Your task to perform on an android device: Open Amazon Image 0: 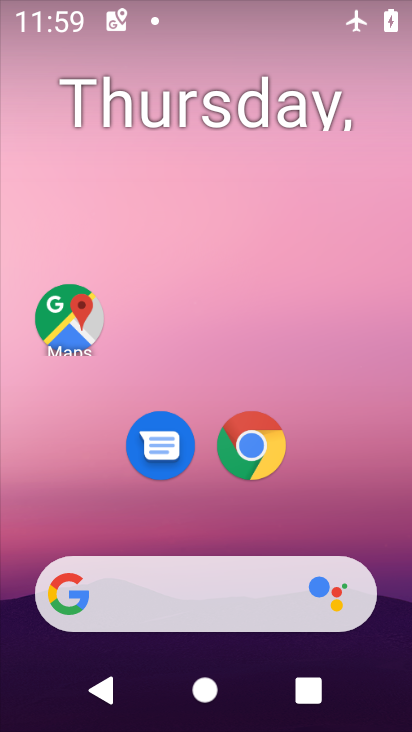
Step 0: click (260, 462)
Your task to perform on an android device: Open Amazon Image 1: 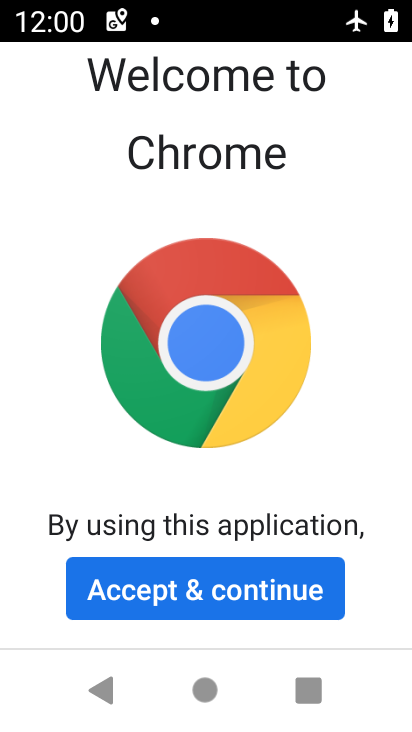
Step 1: click (207, 589)
Your task to perform on an android device: Open Amazon Image 2: 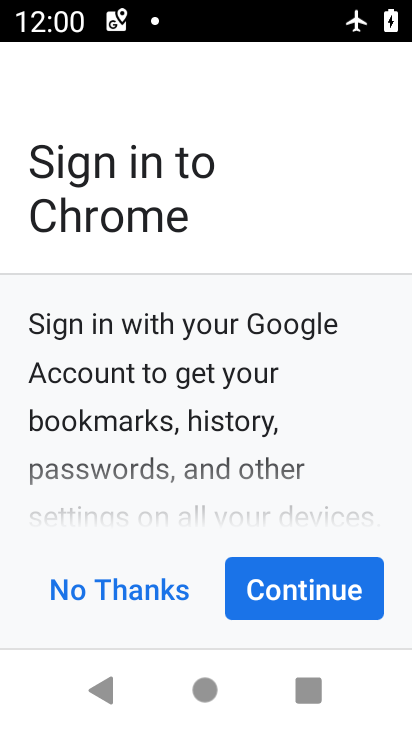
Step 2: click (272, 595)
Your task to perform on an android device: Open Amazon Image 3: 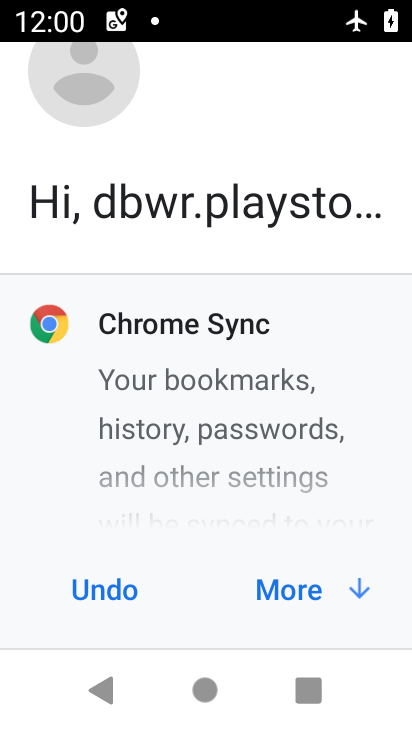
Step 3: click (293, 585)
Your task to perform on an android device: Open Amazon Image 4: 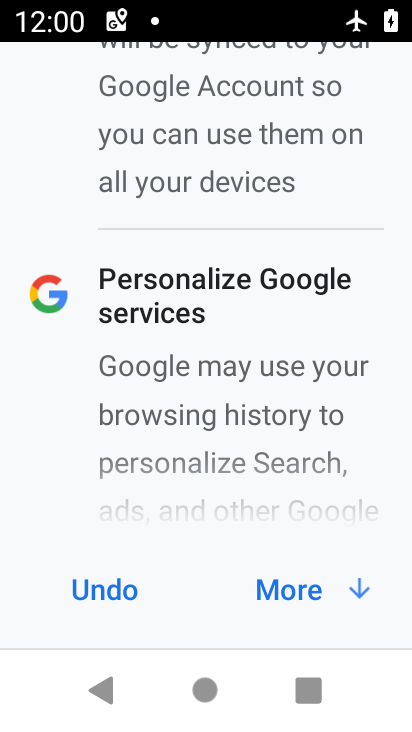
Step 4: click (292, 582)
Your task to perform on an android device: Open Amazon Image 5: 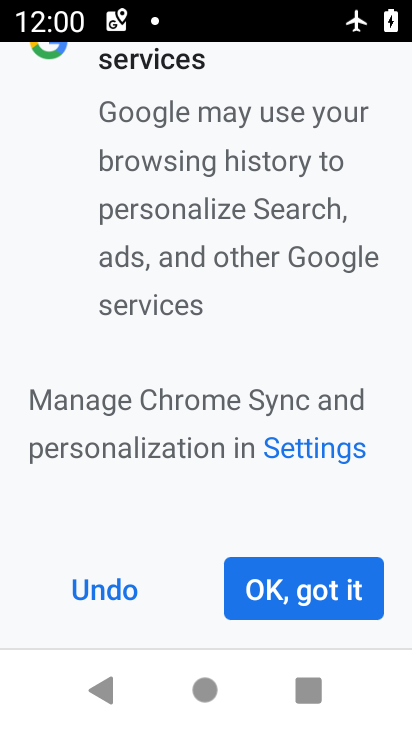
Step 5: click (292, 583)
Your task to perform on an android device: Open Amazon Image 6: 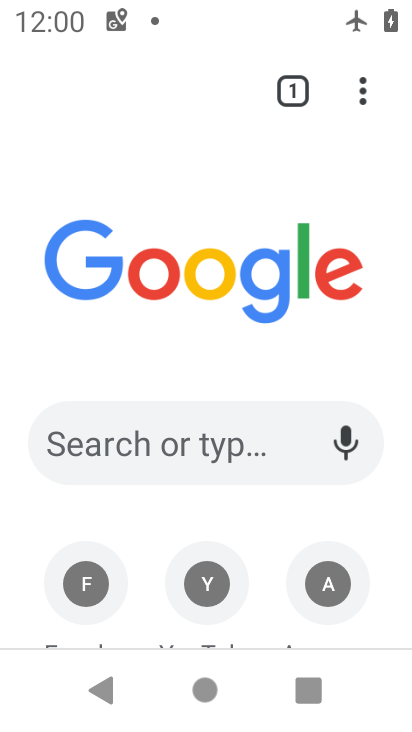
Step 6: drag from (157, 386) to (148, 217)
Your task to perform on an android device: Open Amazon Image 7: 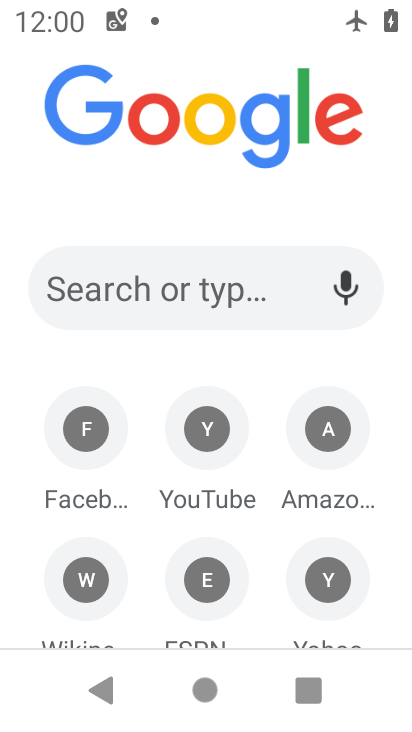
Step 7: click (339, 420)
Your task to perform on an android device: Open Amazon Image 8: 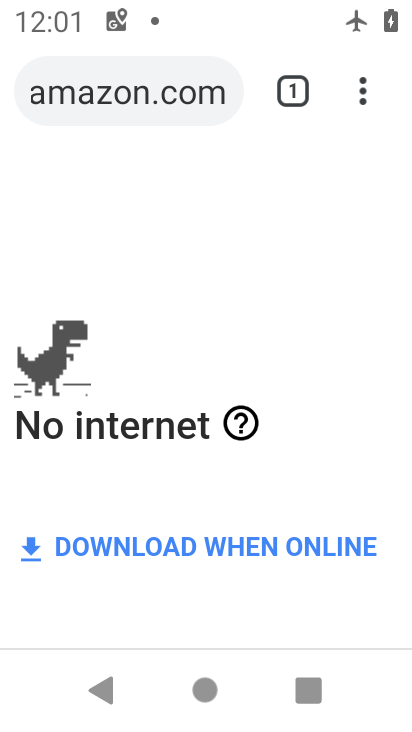
Step 8: task complete